Your task to perform on an android device: refresh tabs in the chrome app Image 0: 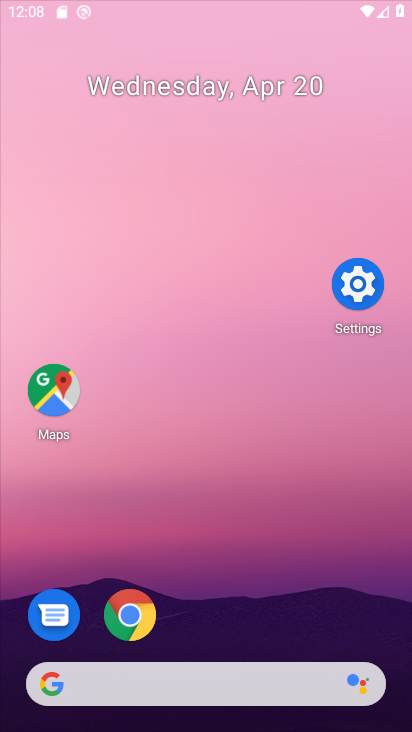
Step 0: click (250, 174)
Your task to perform on an android device: refresh tabs in the chrome app Image 1: 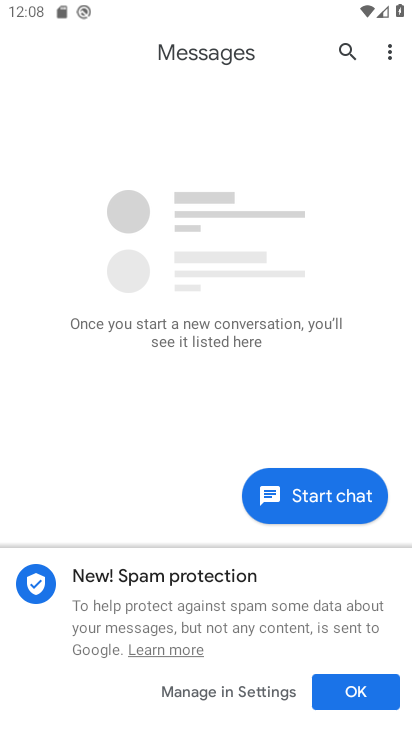
Step 1: click (222, 694)
Your task to perform on an android device: refresh tabs in the chrome app Image 2: 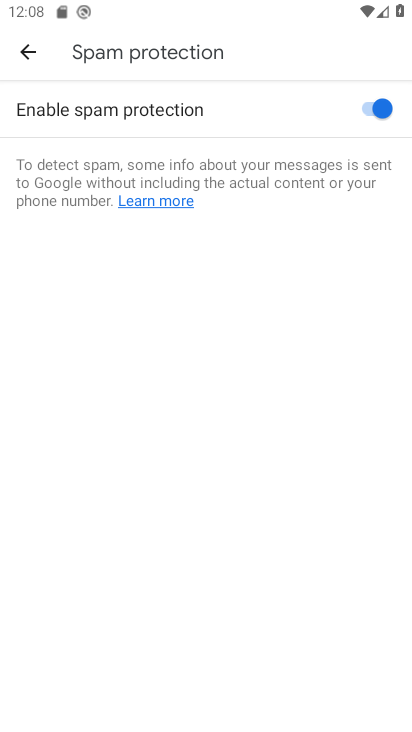
Step 2: drag from (185, 562) to (165, 84)
Your task to perform on an android device: refresh tabs in the chrome app Image 3: 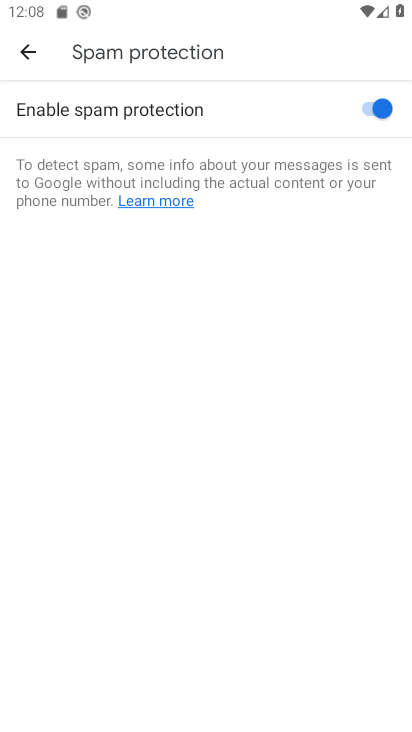
Step 3: click (25, 61)
Your task to perform on an android device: refresh tabs in the chrome app Image 4: 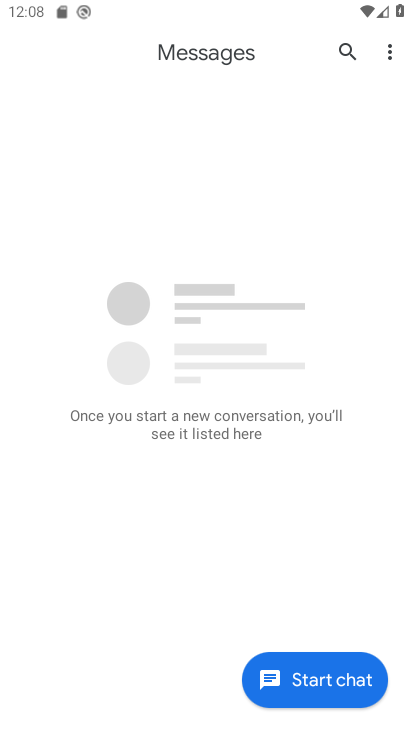
Step 4: drag from (246, 459) to (234, 278)
Your task to perform on an android device: refresh tabs in the chrome app Image 5: 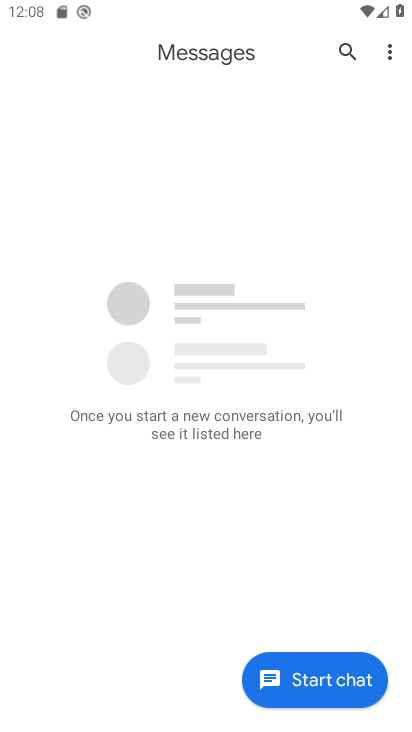
Step 5: press home button
Your task to perform on an android device: refresh tabs in the chrome app Image 6: 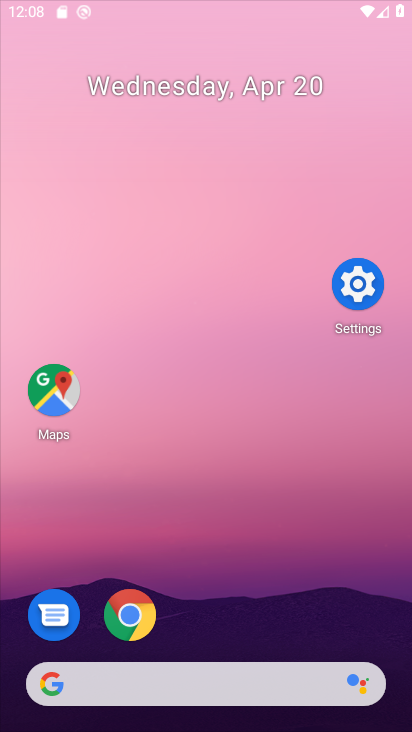
Step 6: drag from (212, 613) to (280, 128)
Your task to perform on an android device: refresh tabs in the chrome app Image 7: 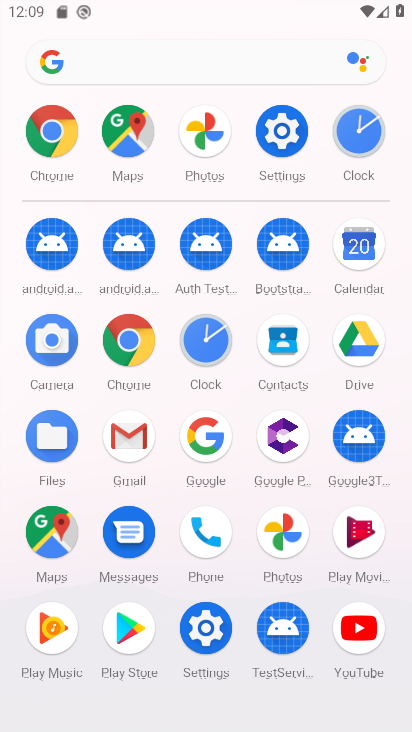
Step 7: click (125, 344)
Your task to perform on an android device: refresh tabs in the chrome app Image 8: 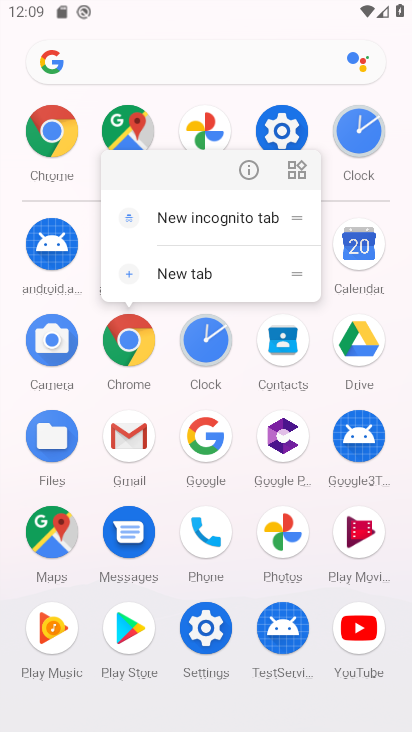
Step 8: click (246, 171)
Your task to perform on an android device: refresh tabs in the chrome app Image 9: 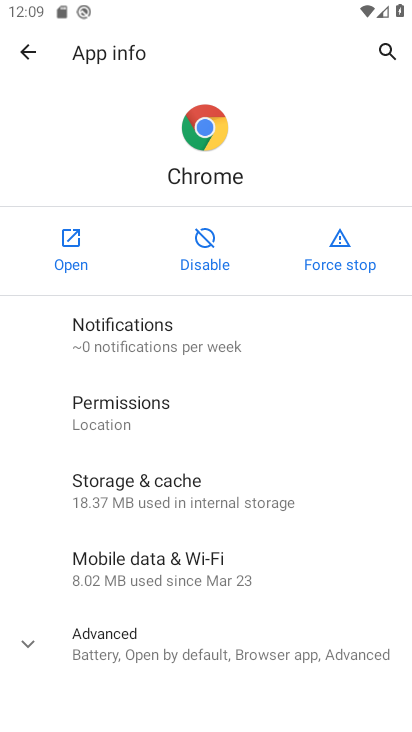
Step 9: click (74, 247)
Your task to perform on an android device: refresh tabs in the chrome app Image 10: 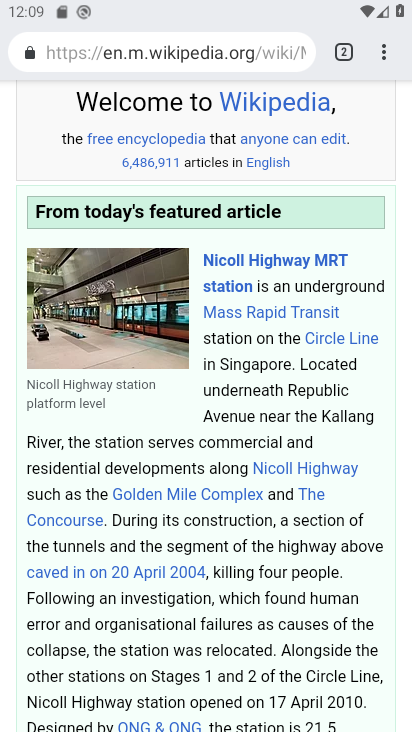
Step 10: click (390, 52)
Your task to perform on an android device: refresh tabs in the chrome app Image 11: 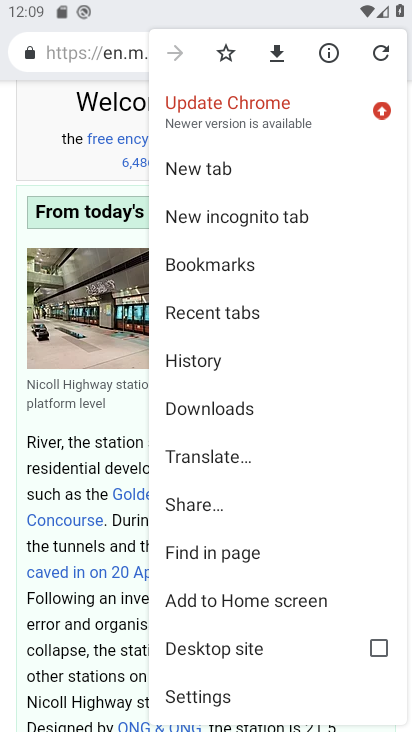
Step 11: drag from (239, 511) to (276, 341)
Your task to perform on an android device: refresh tabs in the chrome app Image 12: 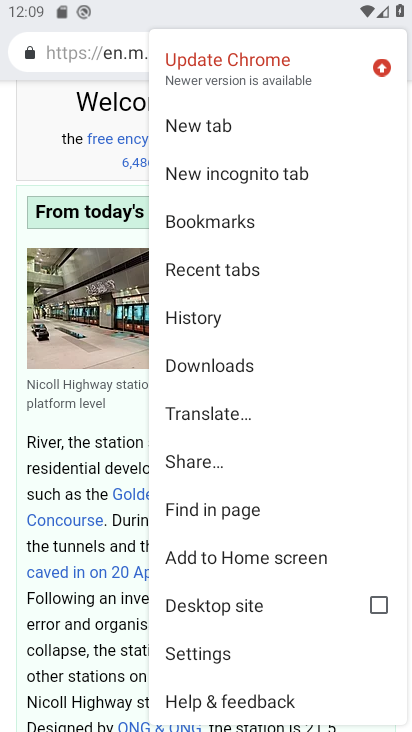
Step 12: drag from (267, 124) to (294, 389)
Your task to perform on an android device: refresh tabs in the chrome app Image 13: 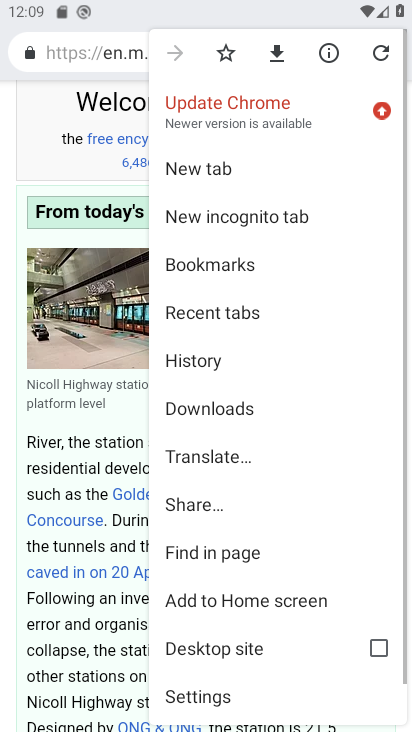
Step 13: click (380, 45)
Your task to perform on an android device: refresh tabs in the chrome app Image 14: 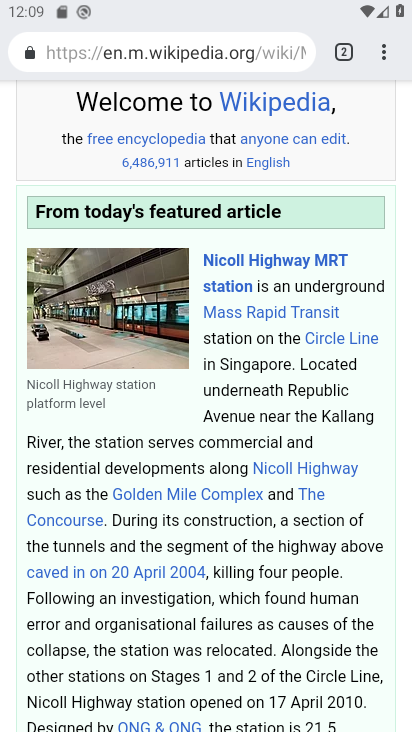
Step 14: task complete